Your task to perform on an android device: Search for sushi restaurants on Maps Image 0: 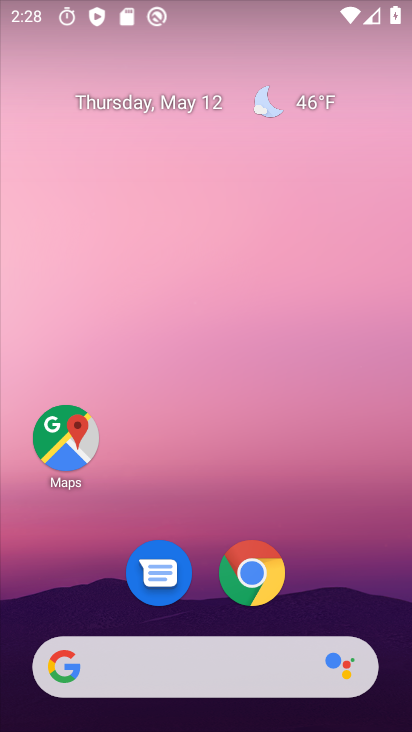
Step 0: click (75, 436)
Your task to perform on an android device: Search for sushi restaurants on Maps Image 1: 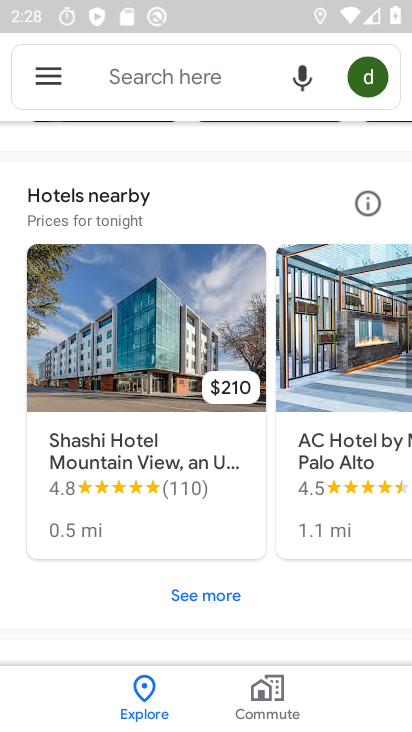
Step 1: click (154, 76)
Your task to perform on an android device: Search for sushi restaurants on Maps Image 2: 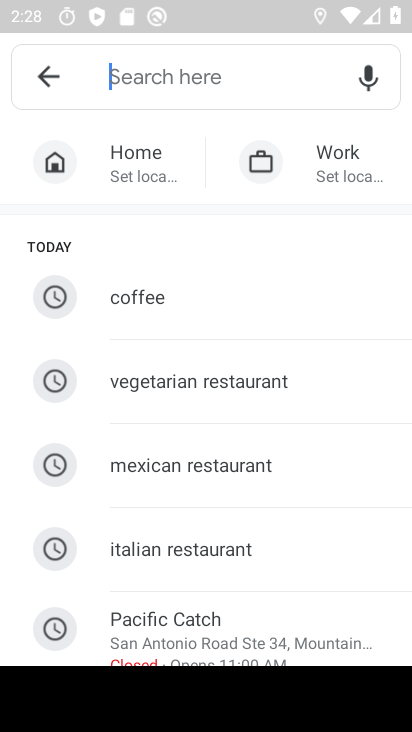
Step 2: drag from (183, 594) to (260, 212)
Your task to perform on an android device: Search for sushi restaurants on Maps Image 3: 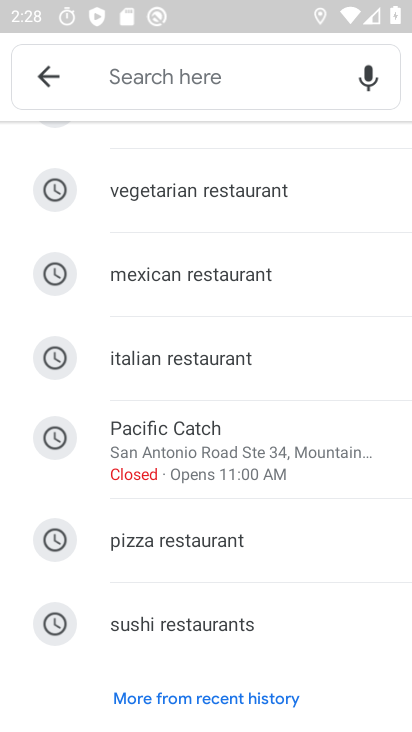
Step 3: click (142, 635)
Your task to perform on an android device: Search for sushi restaurants on Maps Image 4: 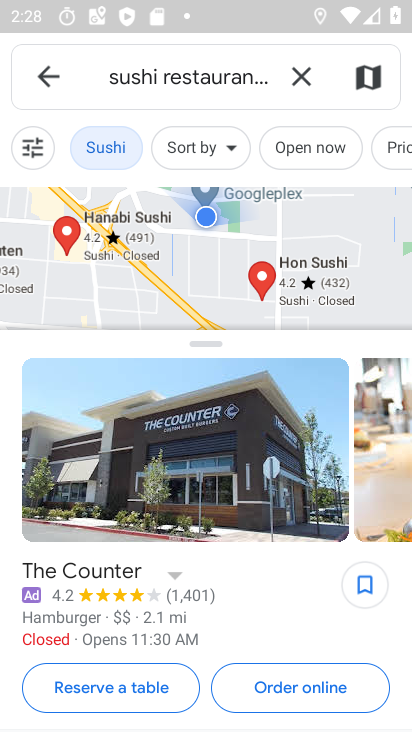
Step 4: task complete